Your task to perform on an android device: set the stopwatch Image 0: 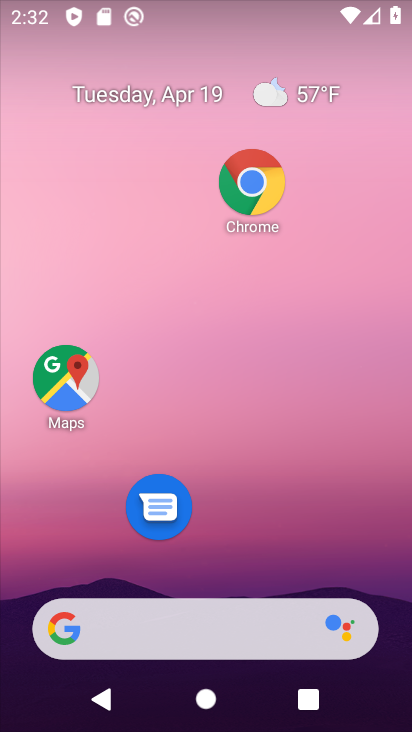
Step 0: click (233, 96)
Your task to perform on an android device: set the stopwatch Image 1: 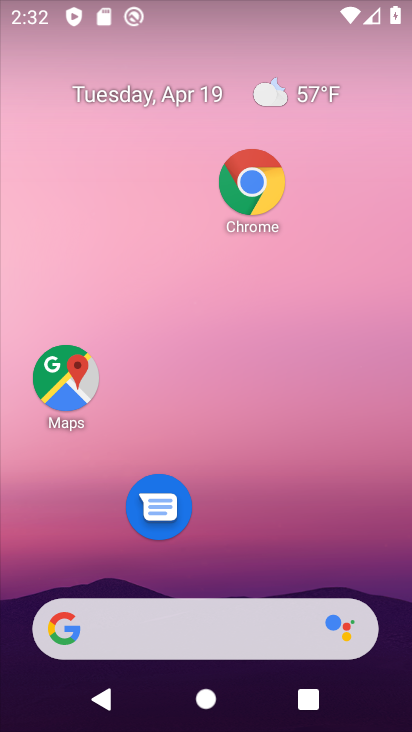
Step 1: drag from (214, 597) to (206, 299)
Your task to perform on an android device: set the stopwatch Image 2: 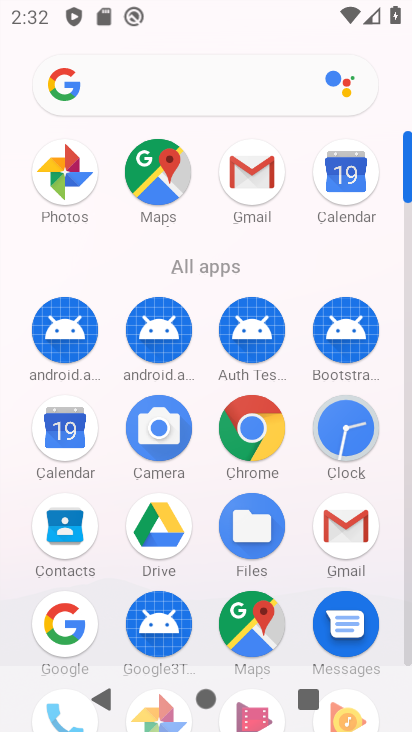
Step 2: click (348, 456)
Your task to perform on an android device: set the stopwatch Image 3: 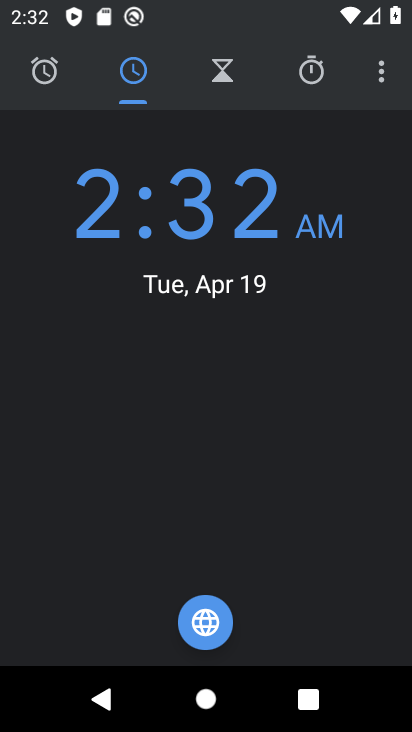
Step 3: click (314, 64)
Your task to perform on an android device: set the stopwatch Image 4: 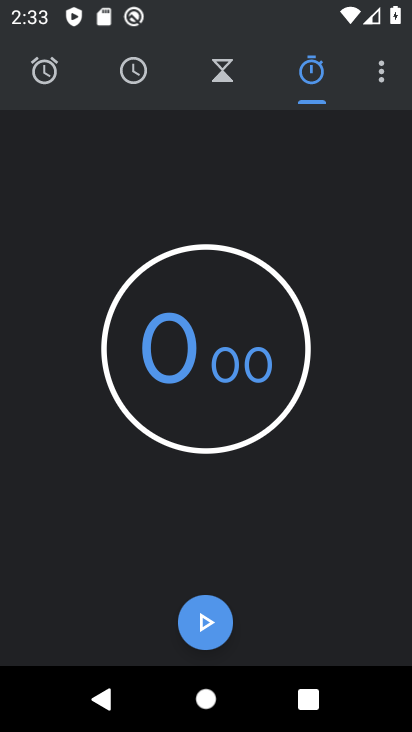
Step 4: click (217, 615)
Your task to perform on an android device: set the stopwatch Image 5: 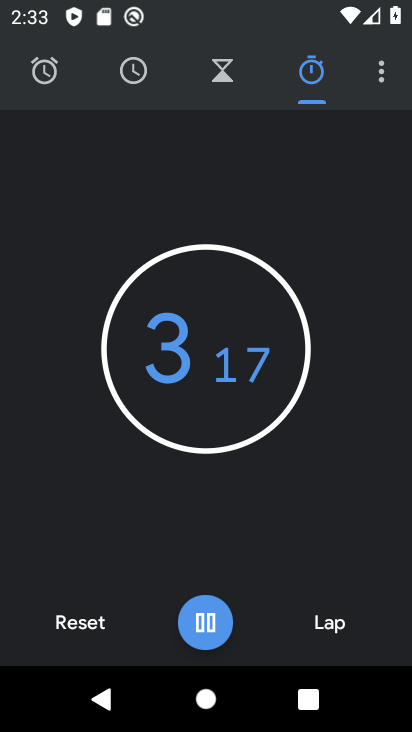
Step 5: task complete